Your task to perform on an android device: manage bookmarks in the chrome app Image 0: 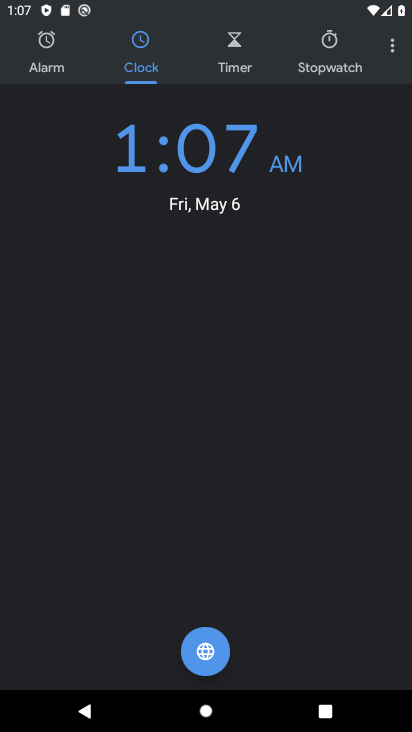
Step 0: click (320, 496)
Your task to perform on an android device: manage bookmarks in the chrome app Image 1: 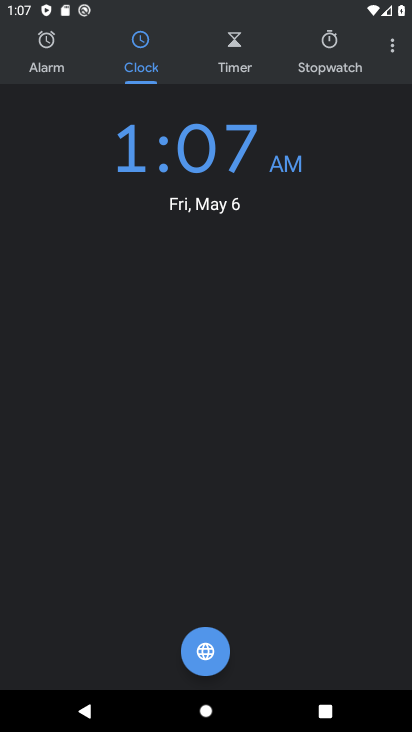
Step 1: press home button
Your task to perform on an android device: manage bookmarks in the chrome app Image 2: 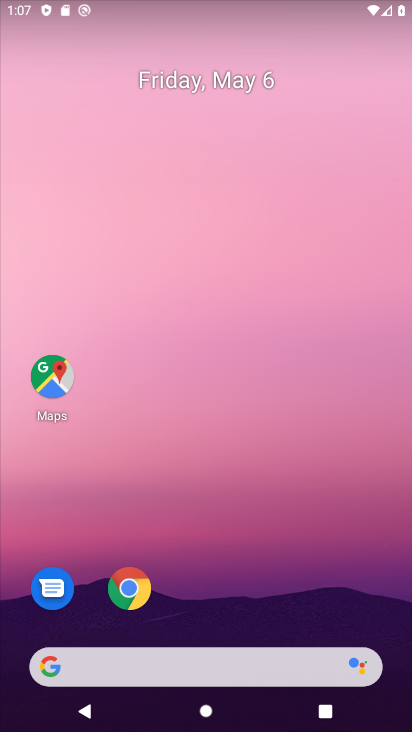
Step 2: drag from (364, 607) to (283, 123)
Your task to perform on an android device: manage bookmarks in the chrome app Image 3: 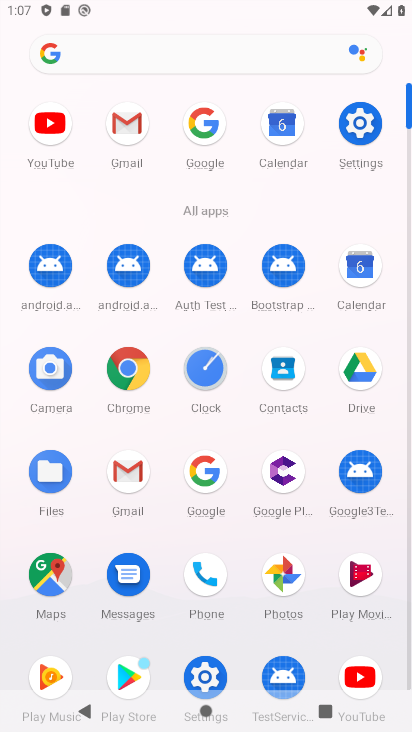
Step 3: click (137, 369)
Your task to perform on an android device: manage bookmarks in the chrome app Image 4: 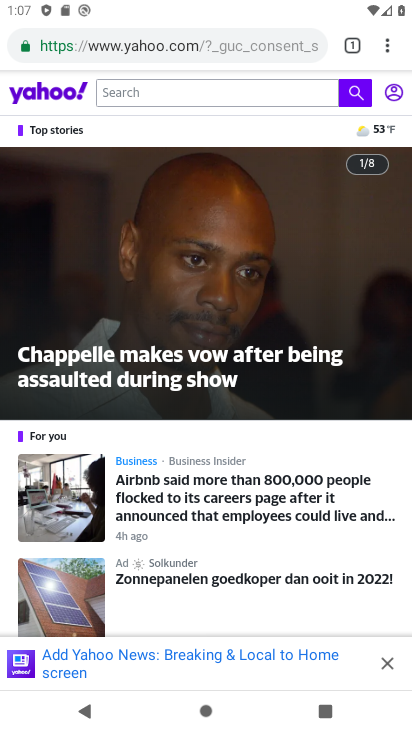
Step 4: drag from (389, 48) to (245, 174)
Your task to perform on an android device: manage bookmarks in the chrome app Image 5: 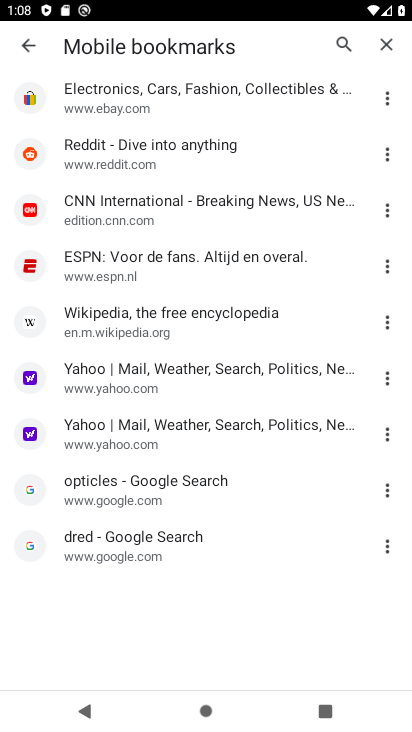
Step 5: click (383, 320)
Your task to perform on an android device: manage bookmarks in the chrome app Image 6: 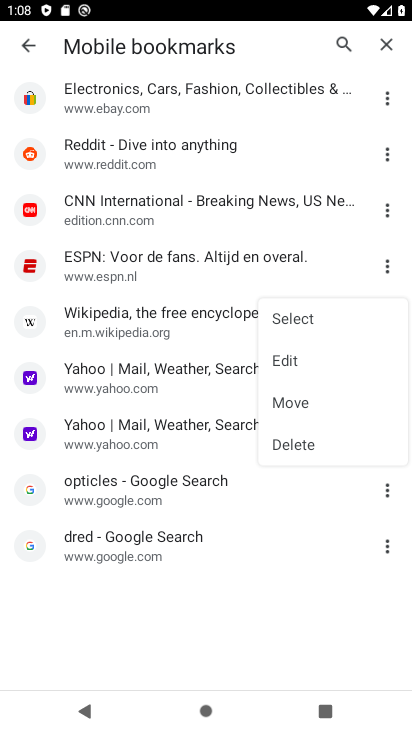
Step 6: click (298, 449)
Your task to perform on an android device: manage bookmarks in the chrome app Image 7: 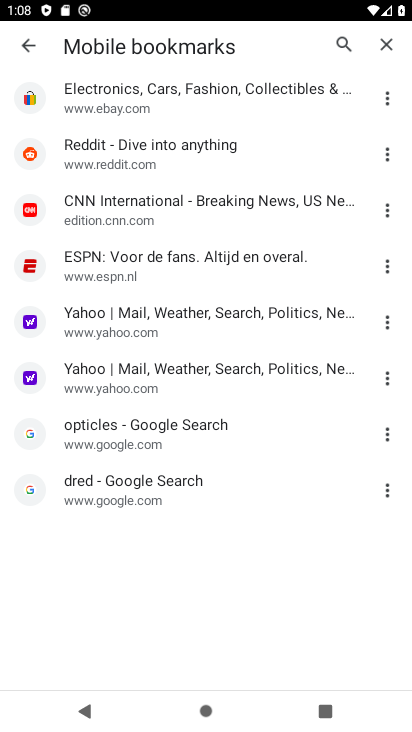
Step 7: task complete